Your task to perform on an android device: empty trash in google photos Image 0: 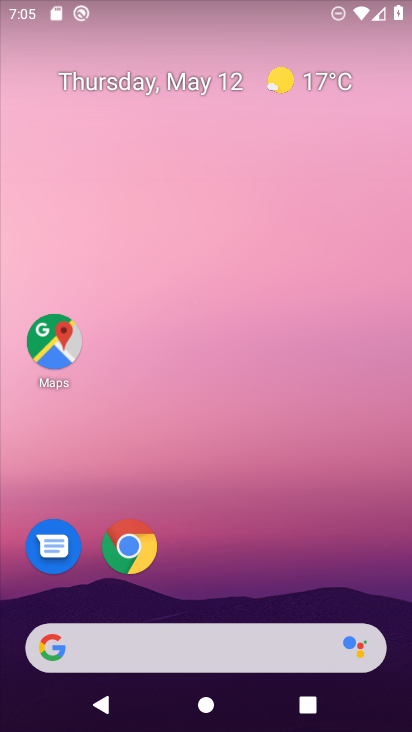
Step 0: drag from (238, 469) to (175, 6)
Your task to perform on an android device: empty trash in google photos Image 1: 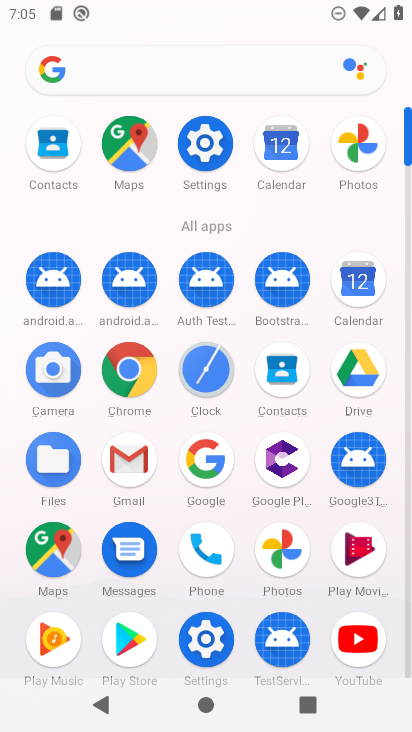
Step 1: click (359, 137)
Your task to perform on an android device: empty trash in google photos Image 2: 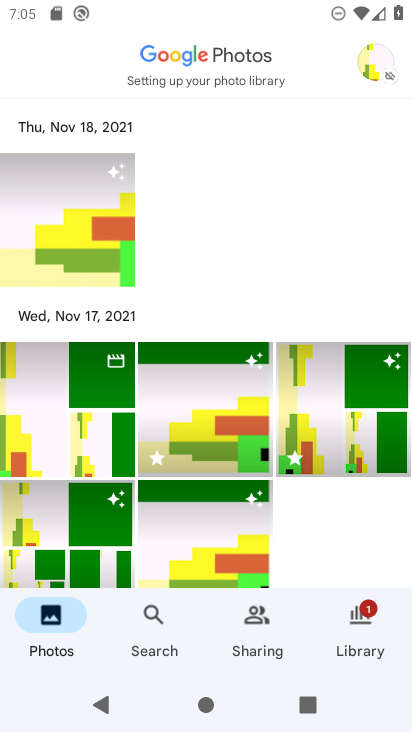
Step 2: click (367, 614)
Your task to perform on an android device: empty trash in google photos Image 3: 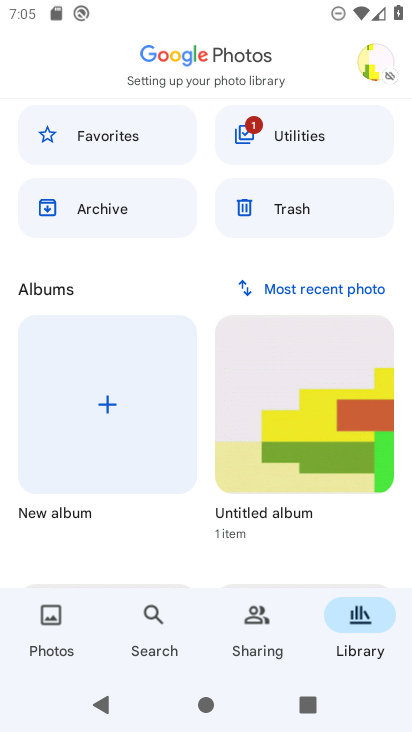
Step 3: click (284, 210)
Your task to perform on an android device: empty trash in google photos Image 4: 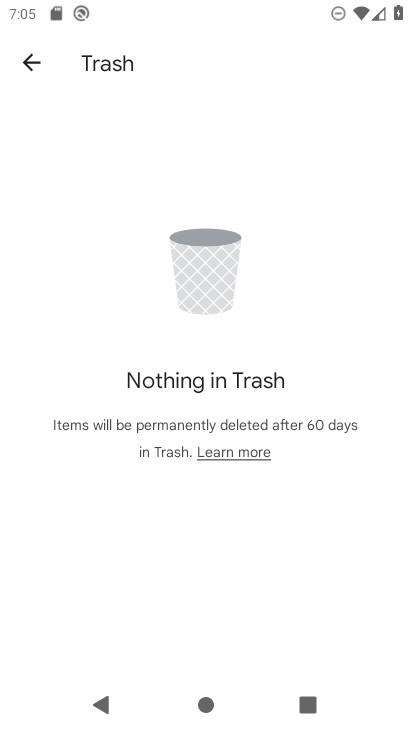
Step 4: task complete